Your task to perform on an android device: What's on my calendar today? Image 0: 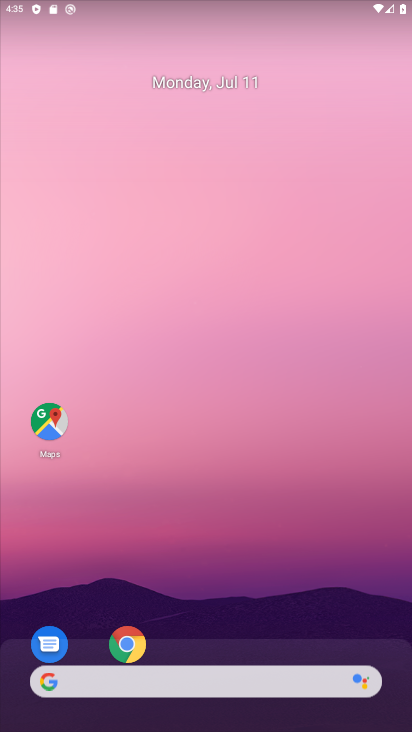
Step 0: drag from (197, 654) to (213, 278)
Your task to perform on an android device: What's on my calendar today? Image 1: 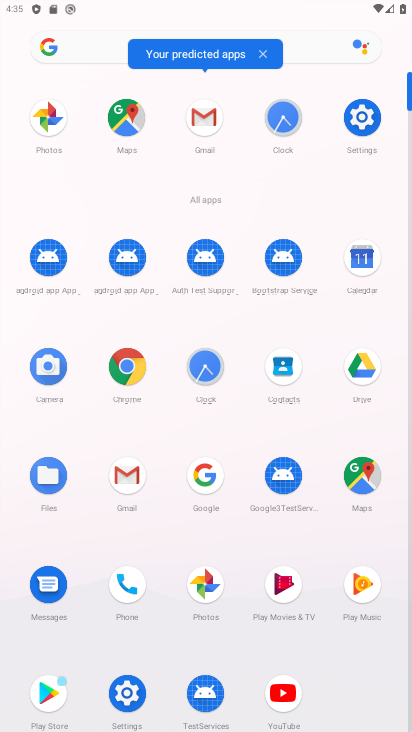
Step 1: click (366, 264)
Your task to perform on an android device: What's on my calendar today? Image 2: 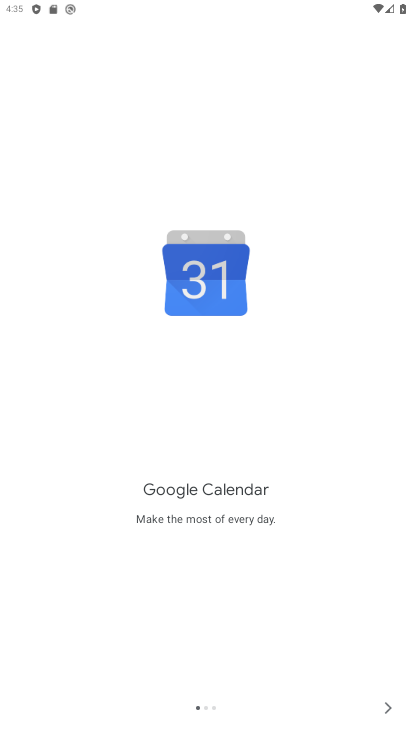
Step 2: click (382, 713)
Your task to perform on an android device: What's on my calendar today? Image 3: 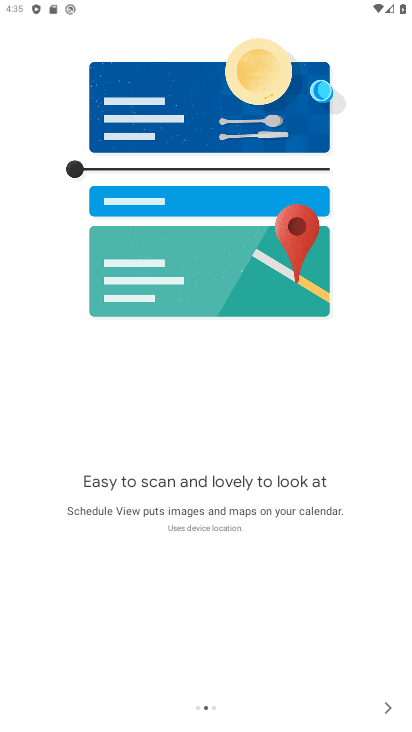
Step 3: click (383, 708)
Your task to perform on an android device: What's on my calendar today? Image 4: 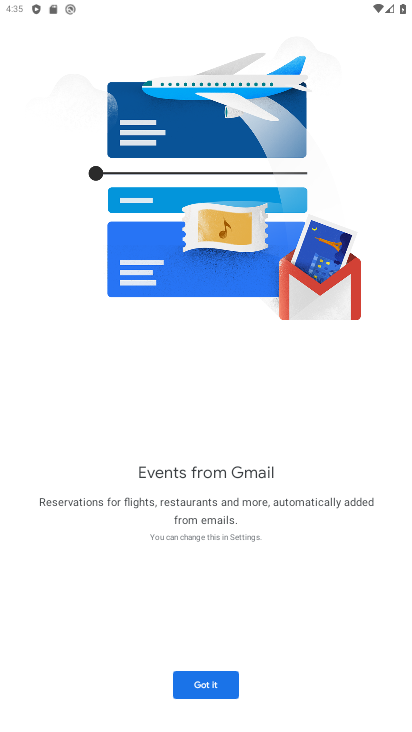
Step 4: click (221, 686)
Your task to perform on an android device: What's on my calendar today? Image 5: 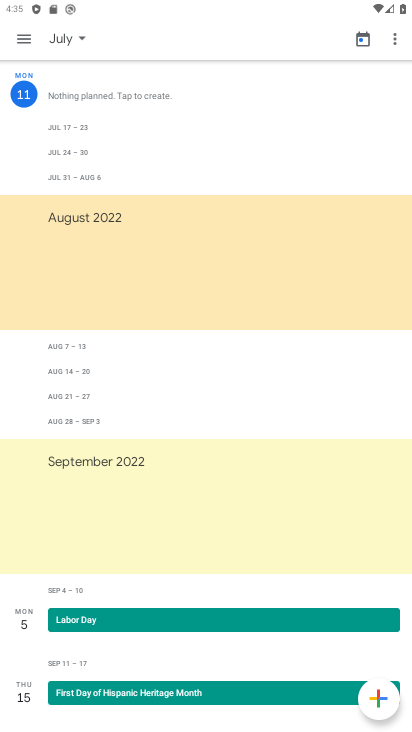
Step 5: task complete